Your task to perform on an android device: Open Yahoo.com Image 0: 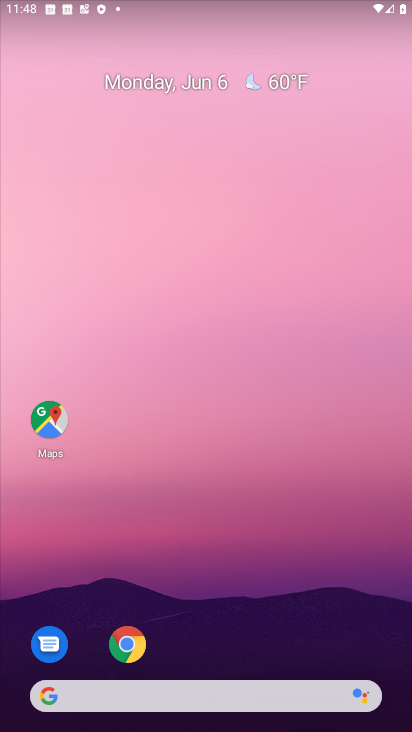
Step 0: drag from (224, 649) to (359, 164)
Your task to perform on an android device: Open Yahoo.com Image 1: 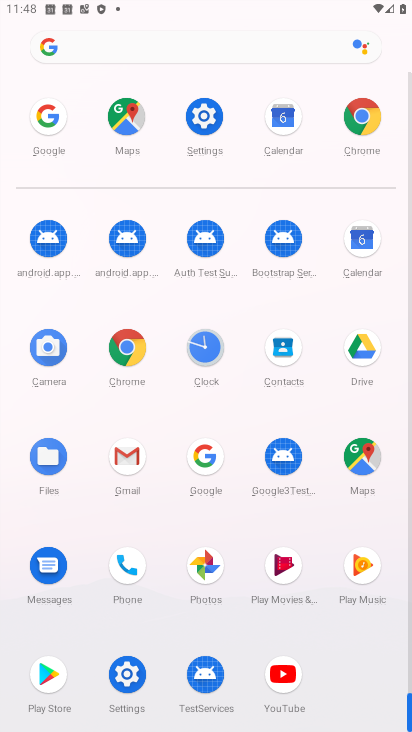
Step 1: click (372, 142)
Your task to perform on an android device: Open Yahoo.com Image 2: 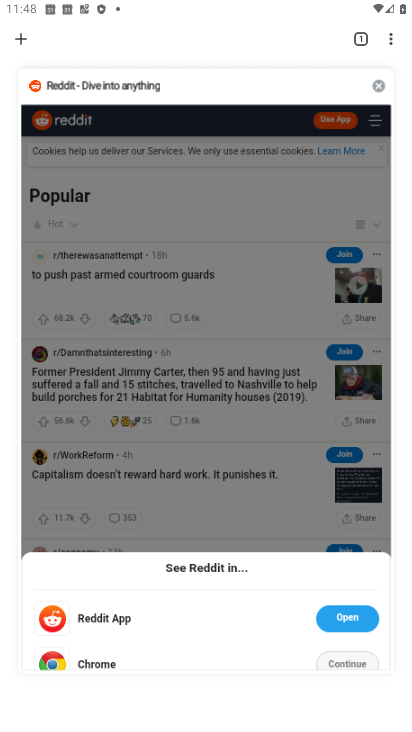
Step 2: click (11, 36)
Your task to perform on an android device: Open Yahoo.com Image 3: 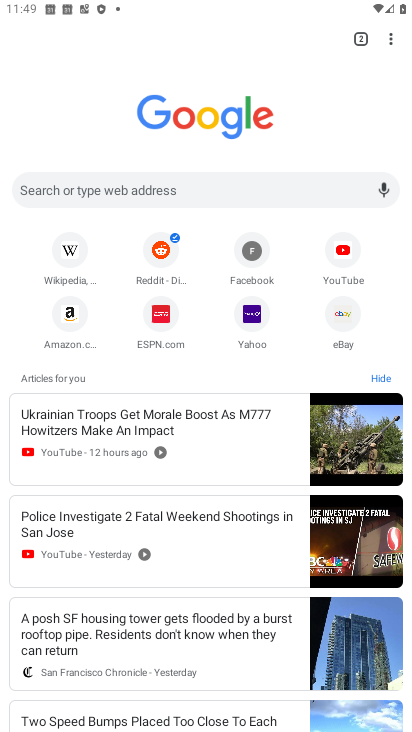
Step 3: click (228, 184)
Your task to perform on an android device: Open Yahoo.com Image 4: 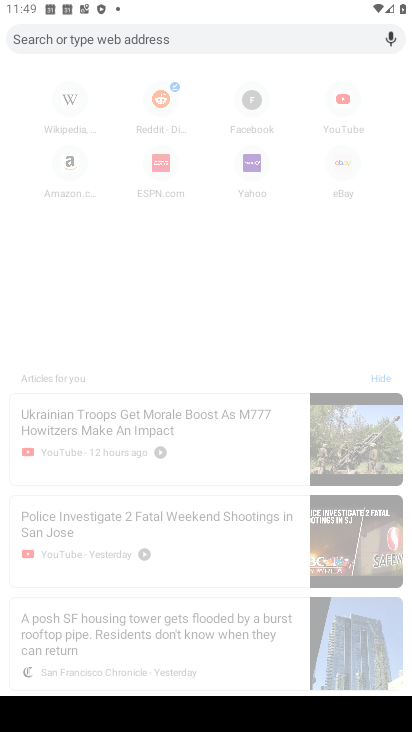
Step 4: type "yahoo"
Your task to perform on an android device: Open Yahoo.com Image 5: 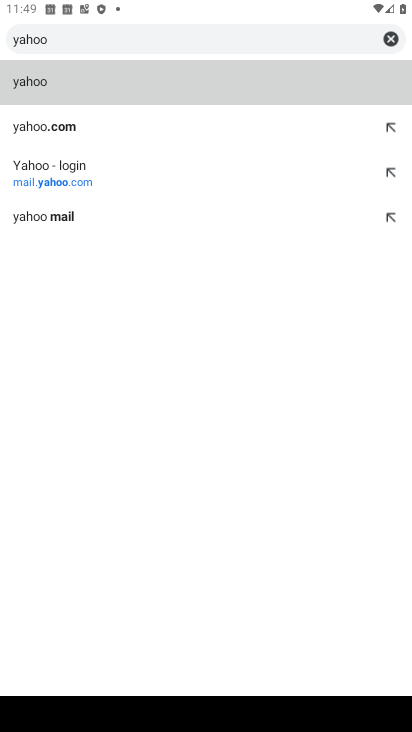
Step 5: click (139, 133)
Your task to perform on an android device: Open Yahoo.com Image 6: 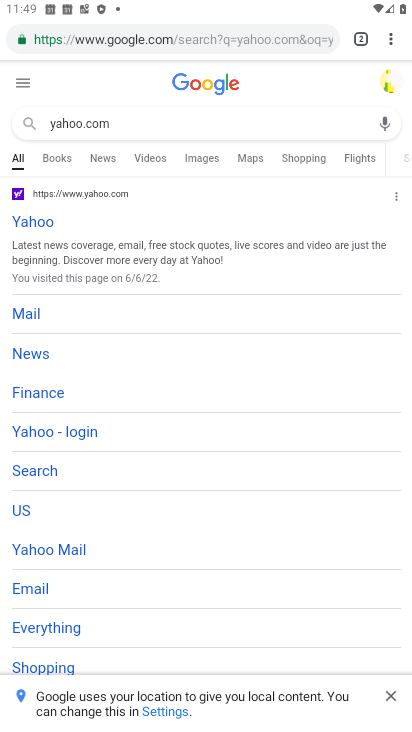
Step 6: click (46, 219)
Your task to perform on an android device: Open Yahoo.com Image 7: 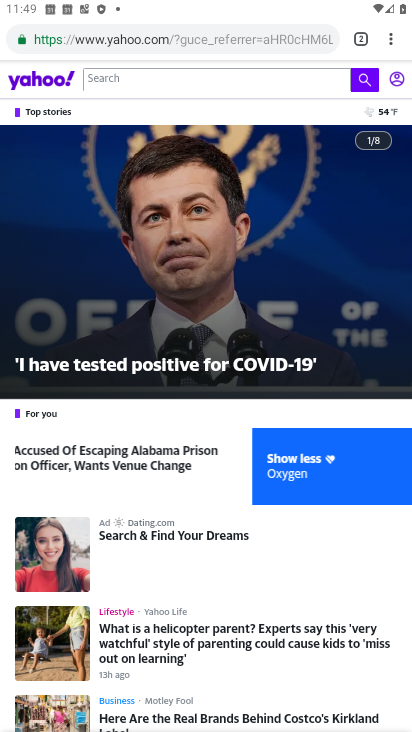
Step 7: task complete